Your task to perform on an android device: turn off notifications in google photos Image 0: 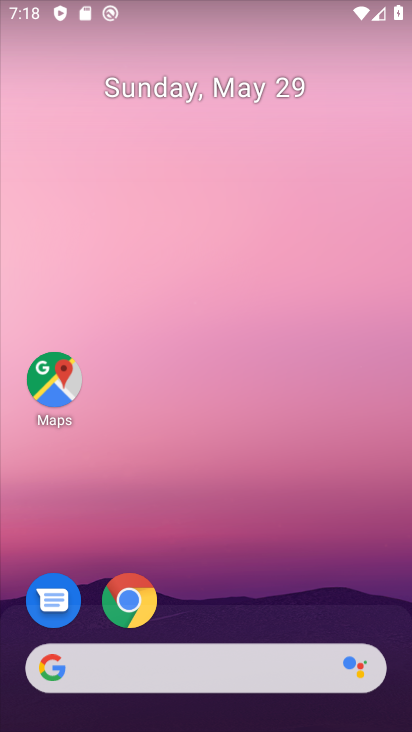
Step 0: drag from (203, 626) to (286, 32)
Your task to perform on an android device: turn off notifications in google photos Image 1: 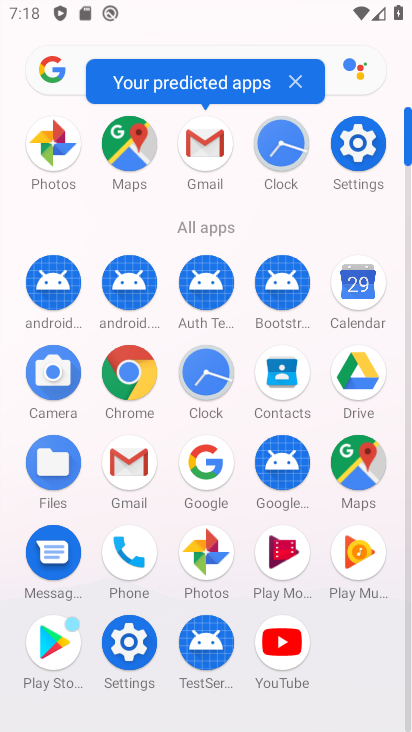
Step 1: click (202, 555)
Your task to perform on an android device: turn off notifications in google photos Image 2: 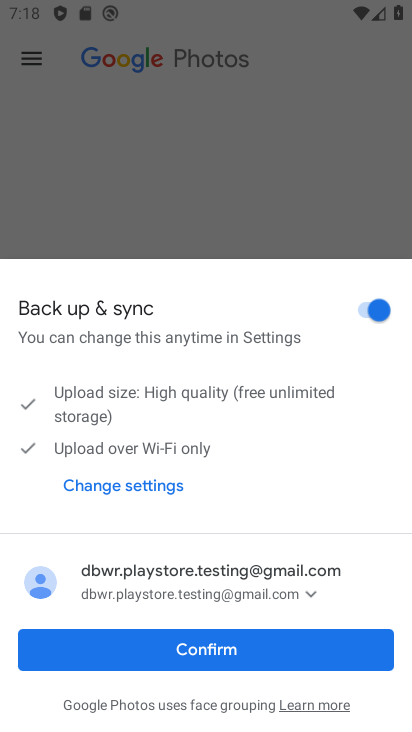
Step 2: click (205, 660)
Your task to perform on an android device: turn off notifications in google photos Image 3: 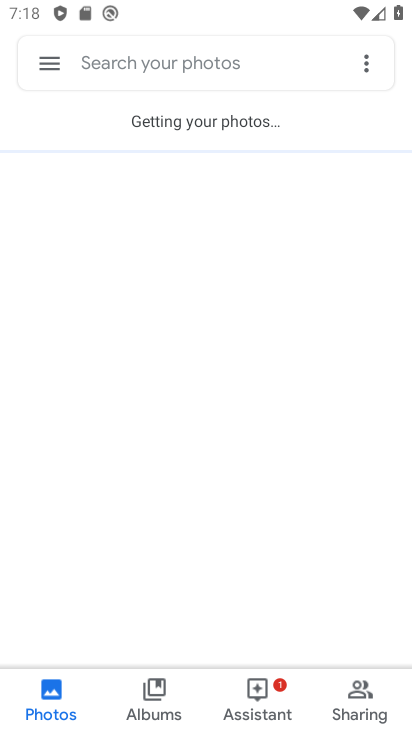
Step 3: click (46, 54)
Your task to perform on an android device: turn off notifications in google photos Image 4: 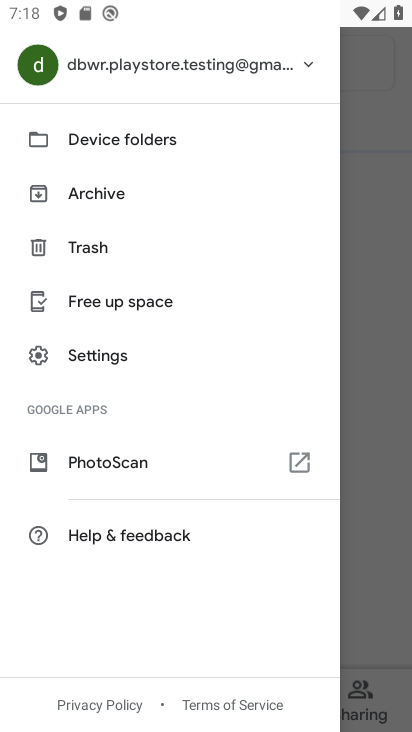
Step 4: click (90, 359)
Your task to perform on an android device: turn off notifications in google photos Image 5: 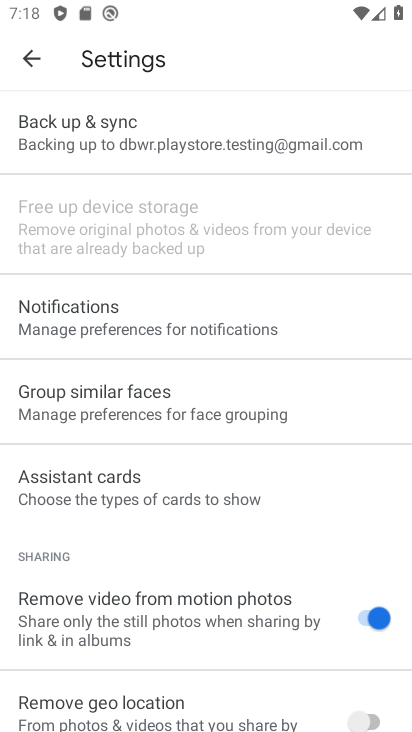
Step 5: click (145, 316)
Your task to perform on an android device: turn off notifications in google photos Image 6: 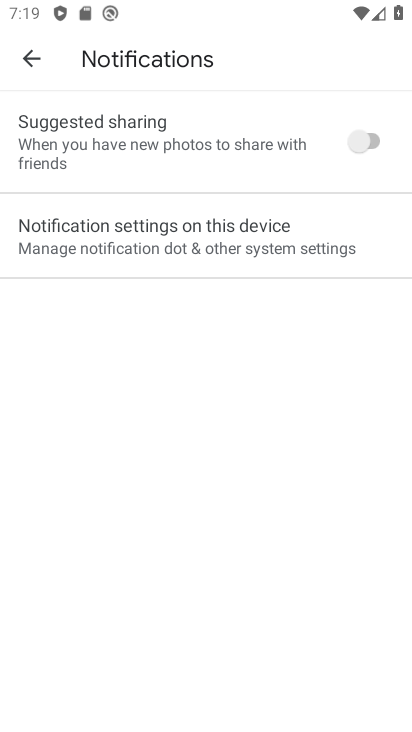
Step 6: click (156, 237)
Your task to perform on an android device: turn off notifications in google photos Image 7: 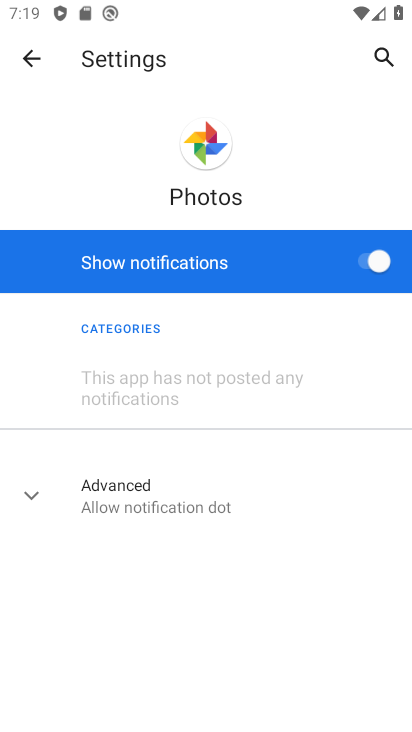
Step 7: click (343, 263)
Your task to perform on an android device: turn off notifications in google photos Image 8: 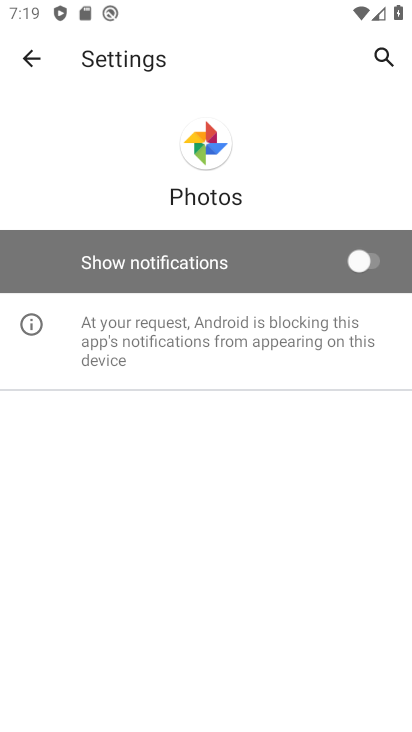
Step 8: task complete